Your task to perform on an android device: Open Wikipedia Image 0: 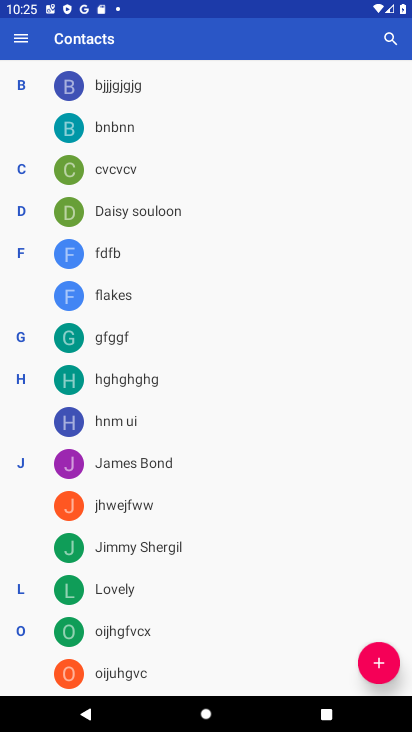
Step 0: press home button
Your task to perform on an android device: Open Wikipedia Image 1: 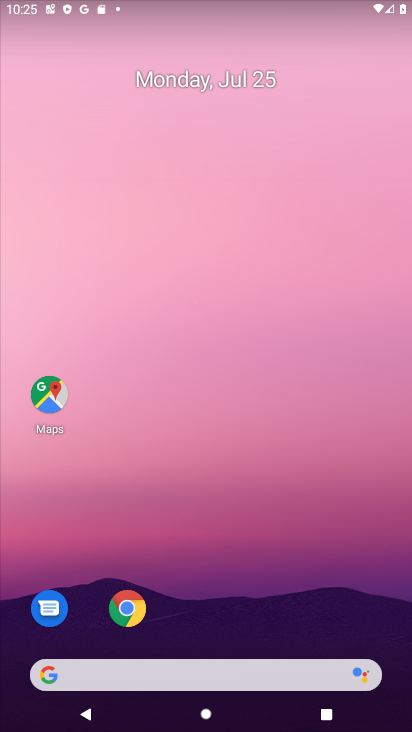
Step 1: click (138, 609)
Your task to perform on an android device: Open Wikipedia Image 2: 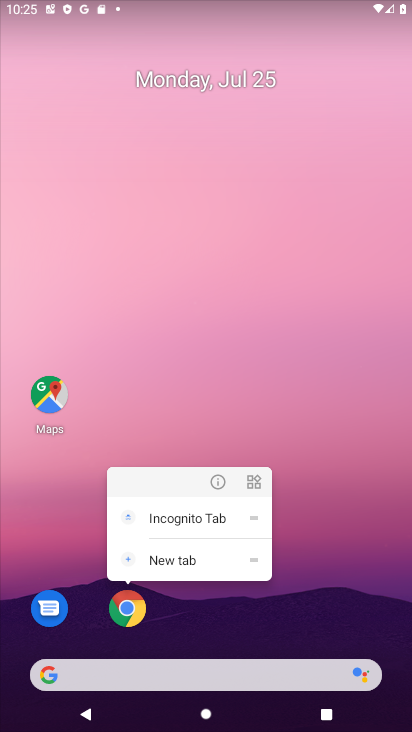
Step 2: click (119, 603)
Your task to perform on an android device: Open Wikipedia Image 3: 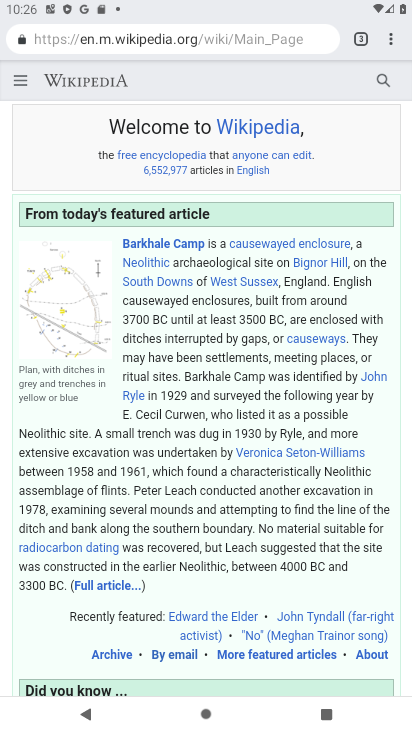
Step 3: task complete